Your task to perform on an android device: Search for Mexican restaurants on Maps Image 0: 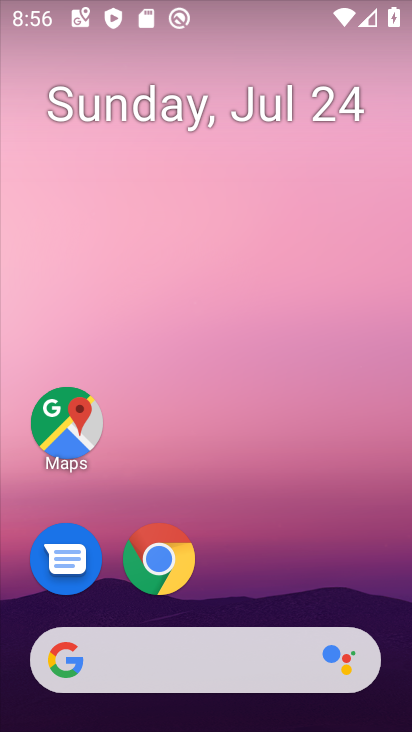
Step 0: click (70, 425)
Your task to perform on an android device: Search for Mexican restaurants on Maps Image 1: 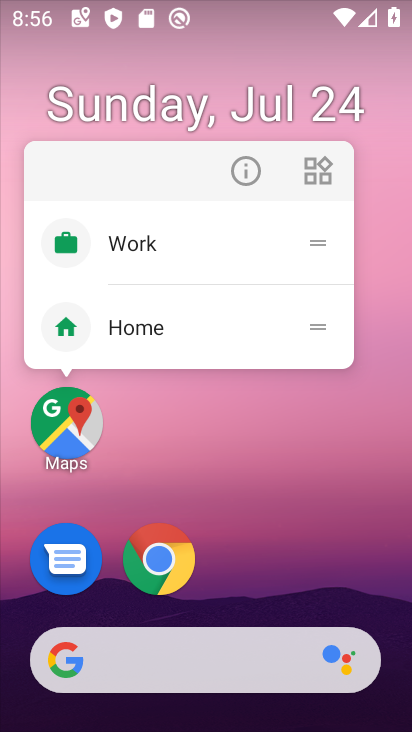
Step 1: click (52, 432)
Your task to perform on an android device: Search for Mexican restaurants on Maps Image 2: 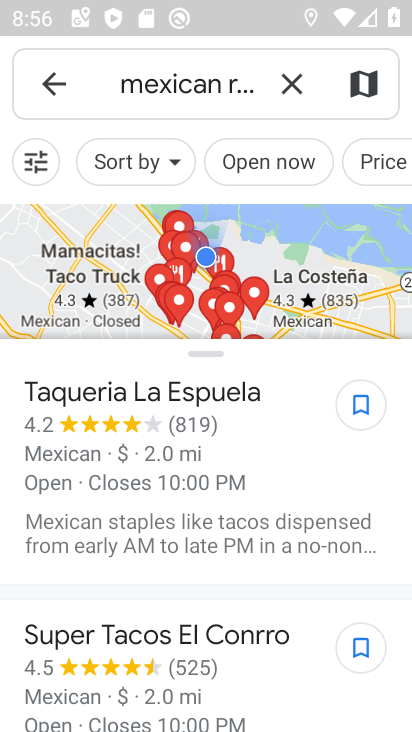
Step 2: task complete